Your task to perform on an android device: Show me popular videos on Youtube Image 0: 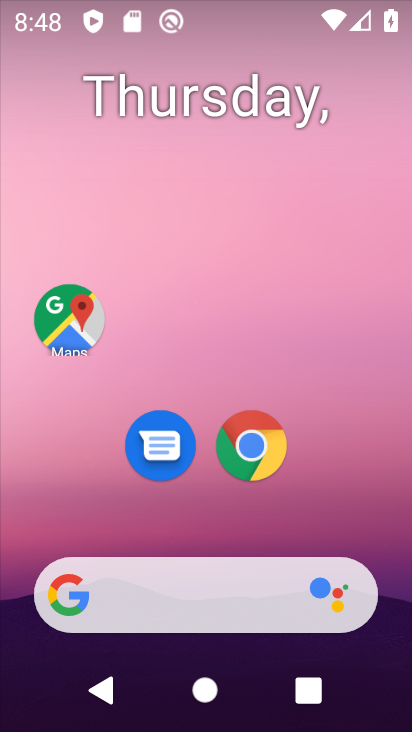
Step 0: drag from (390, 437) to (393, 25)
Your task to perform on an android device: Show me popular videos on Youtube Image 1: 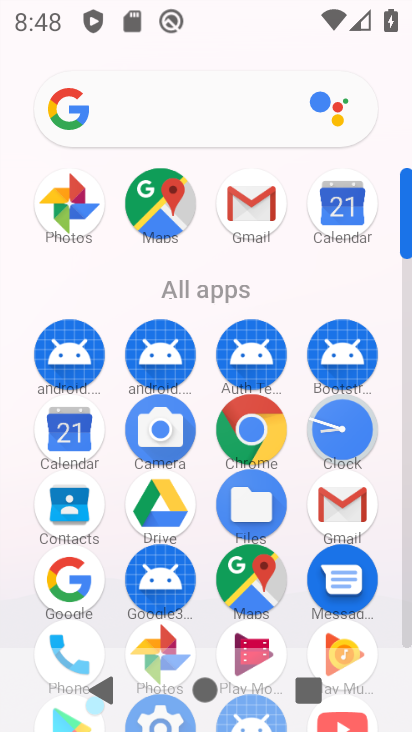
Step 1: drag from (405, 571) to (411, 516)
Your task to perform on an android device: Show me popular videos on Youtube Image 2: 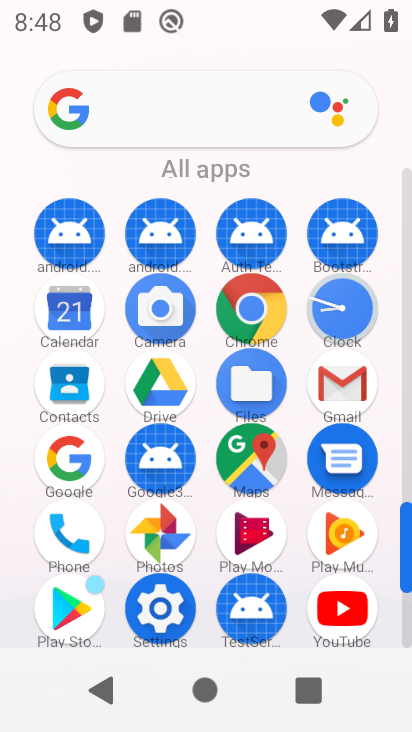
Step 2: click (340, 603)
Your task to perform on an android device: Show me popular videos on Youtube Image 3: 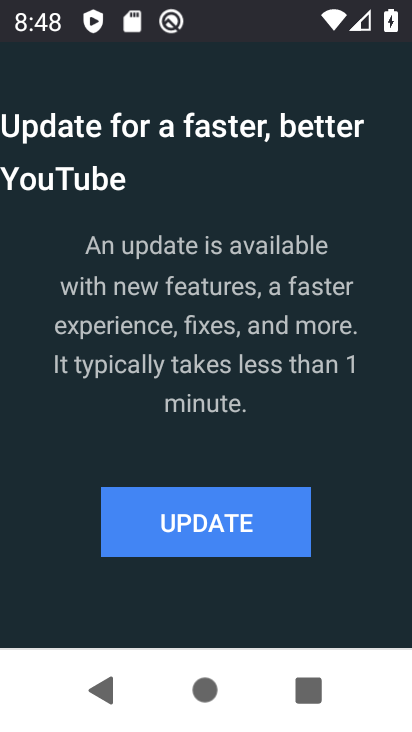
Step 3: click (233, 551)
Your task to perform on an android device: Show me popular videos on Youtube Image 4: 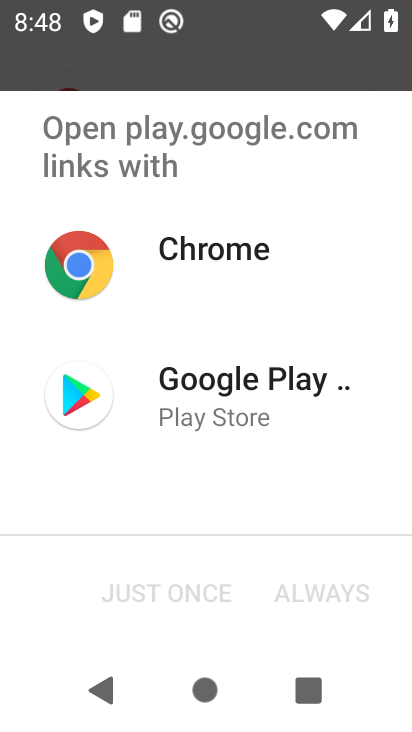
Step 4: click (229, 411)
Your task to perform on an android device: Show me popular videos on Youtube Image 5: 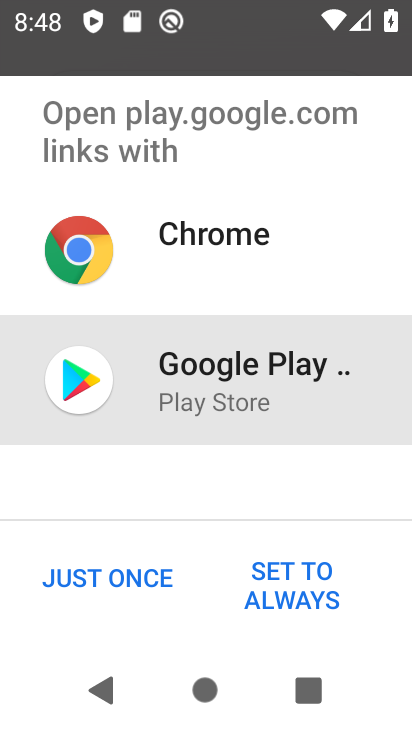
Step 5: click (100, 546)
Your task to perform on an android device: Show me popular videos on Youtube Image 6: 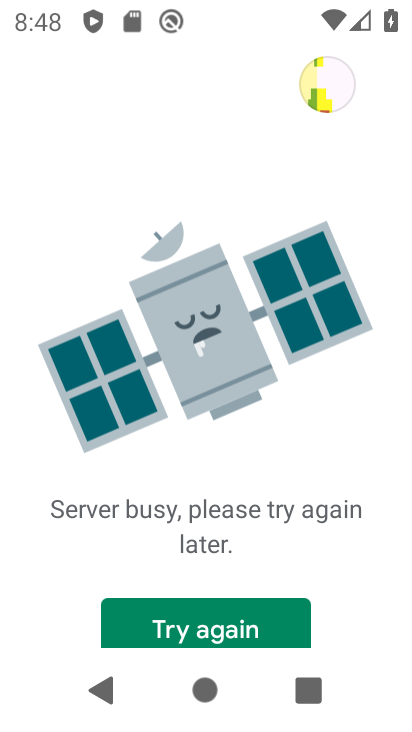
Step 6: task complete